Your task to perform on an android device: Open Youtube and go to "Your channel" Image 0: 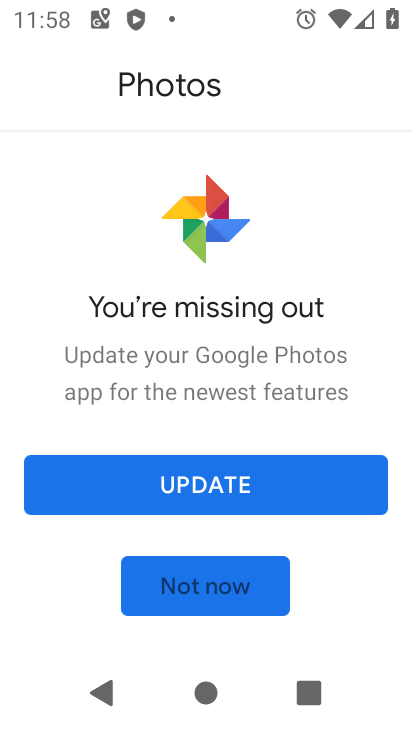
Step 0: press home button
Your task to perform on an android device: Open Youtube and go to "Your channel" Image 1: 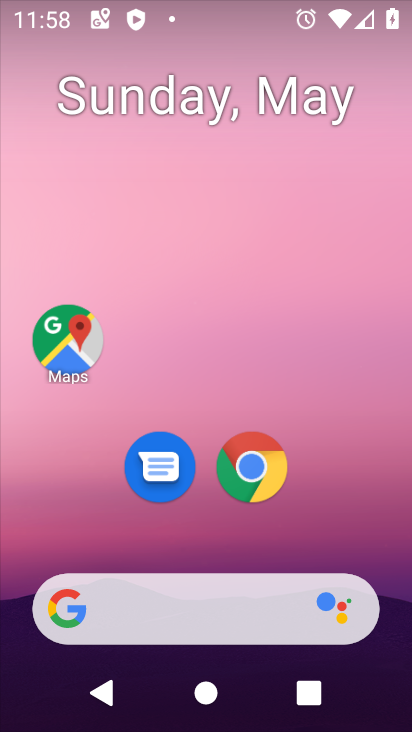
Step 1: drag from (384, 527) to (395, 12)
Your task to perform on an android device: Open Youtube and go to "Your channel" Image 2: 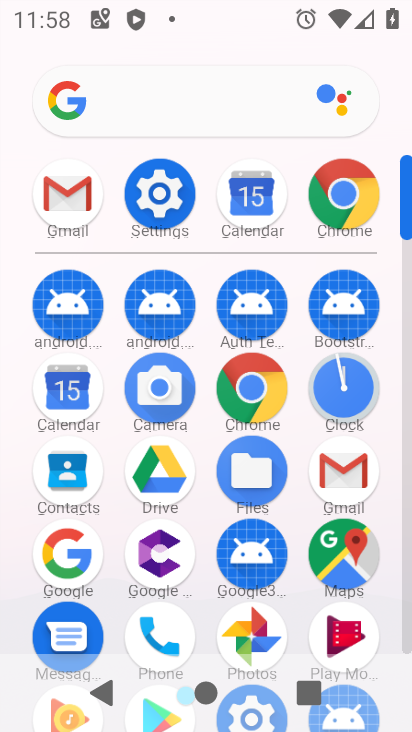
Step 2: drag from (400, 575) to (411, 405)
Your task to perform on an android device: Open Youtube and go to "Your channel" Image 3: 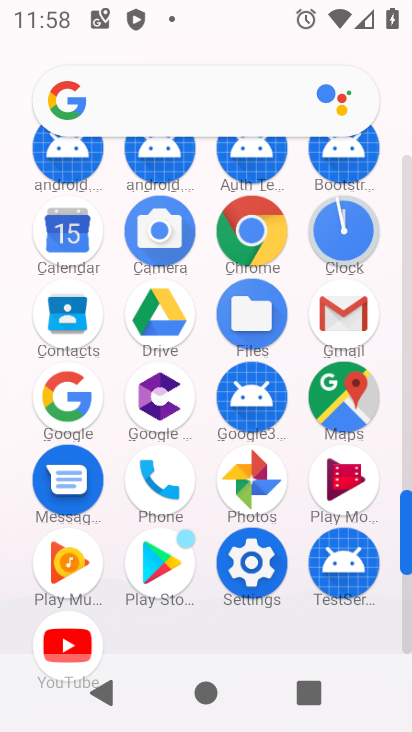
Step 3: click (54, 642)
Your task to perform on an android device: Open Youtube and go to "Your channel" Image 4: 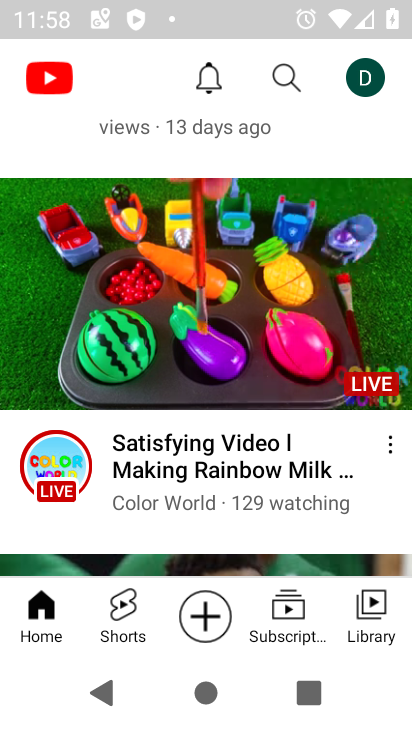
Step 4: click (360, 85)
Your task to perform on an android device: Open Youtube and go to "Your channel" Image 5: 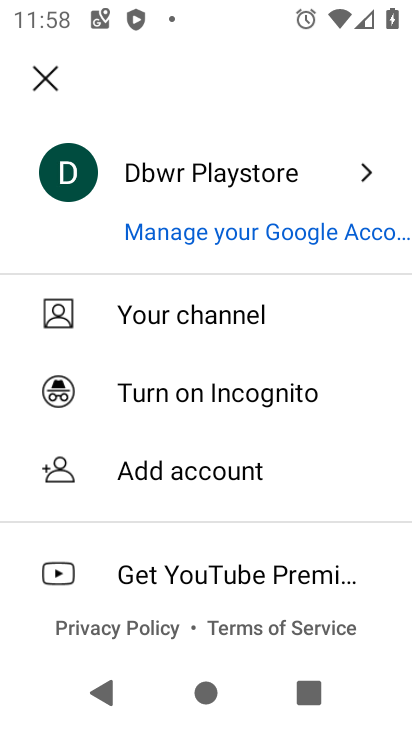
Step 5: click (193, 327)
Your task to perform on an android device: Open Youtube and go to "Your channel" Image 6: 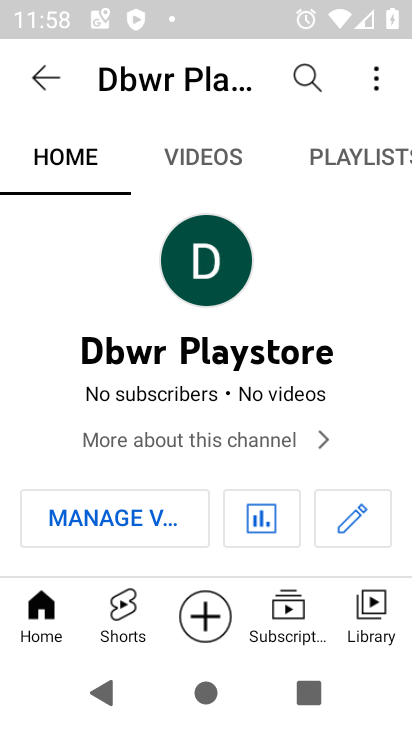
Step 6: task complete